Your task to perform on an android device: Open calendar and show me the second week of next month Image 0: 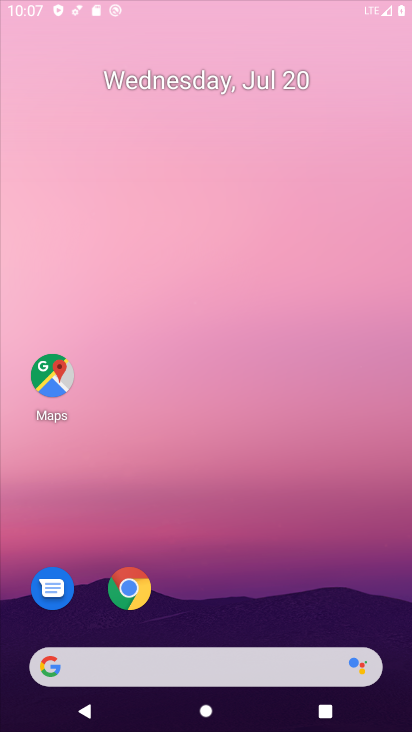
Step 0: drag from (172, 95) to (173, 58)
Your task to perform on an android device: Open calendar and show me the second week of next month Image 1: 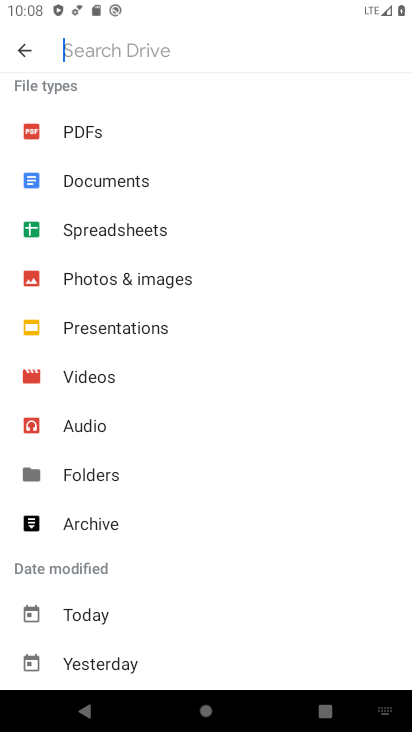
Step 1: press home button
Your task to perform on an android device: Open calendar and show me the second week of next month Image 2: 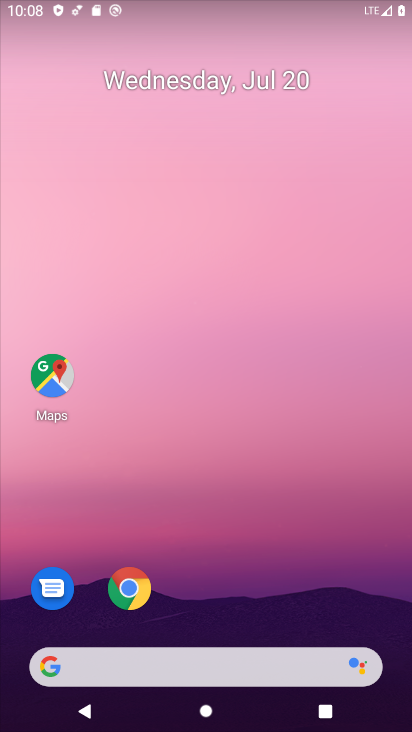
Step 2: drag from (217, 592) to (188, 3)
Your task to perform on an android device: Open calendar and show me the second week of next month Image 3: 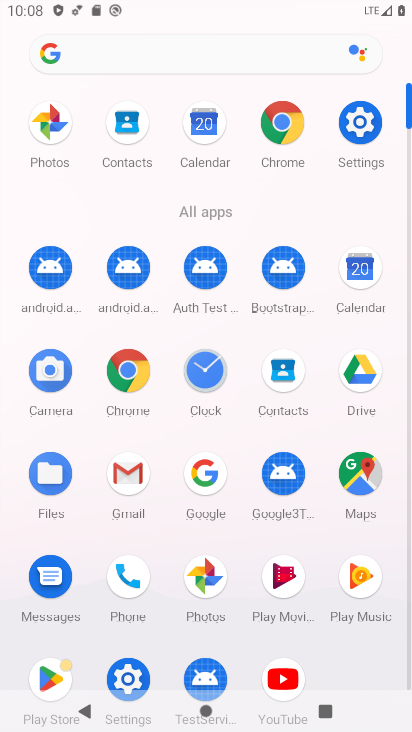
Step 3: click (370, 293)
Your task to perform on an android device: Open calendar and show me the second week of next month Image 4: 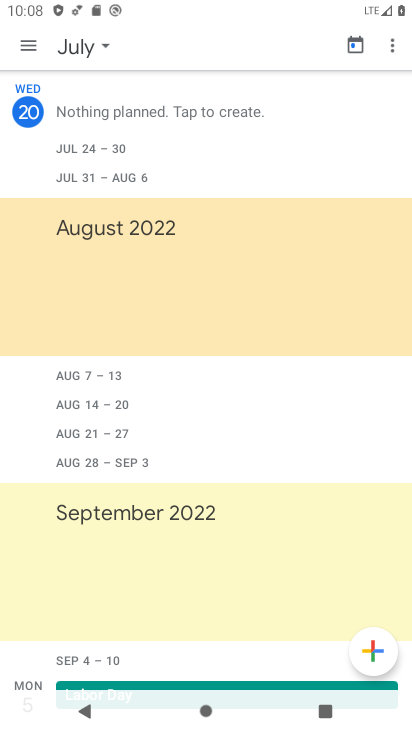
Step 4: click (36, 40)
Your task to perform on an android device: Open calendar and show me the second week of next month Image 5: 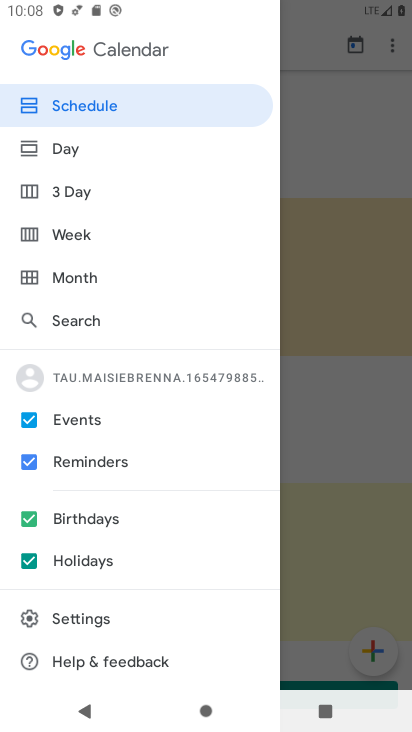
Step 5: click (91, 244)
Your task to perform on an android device: Open calendar and show me the second week of next month Image 6: 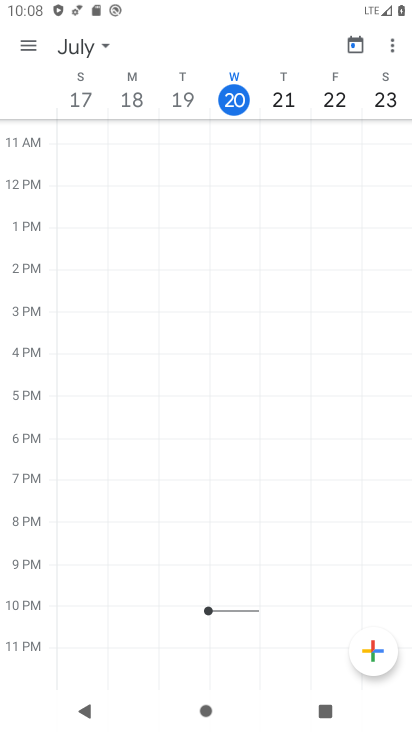
Step 6: task complete